Your task to perform on an android device: What's the weather going to be tomorrow? Image 0: 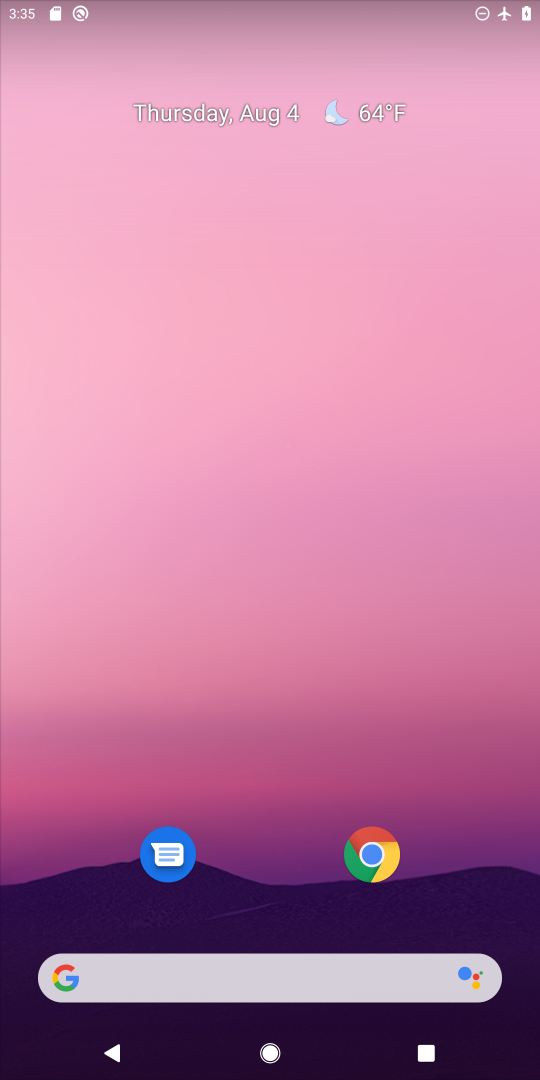
Step 0: drag from (270, 879) to (238, 271)
Your task to perform on an android device: What's the weather going to be tomorrow? Image 1: 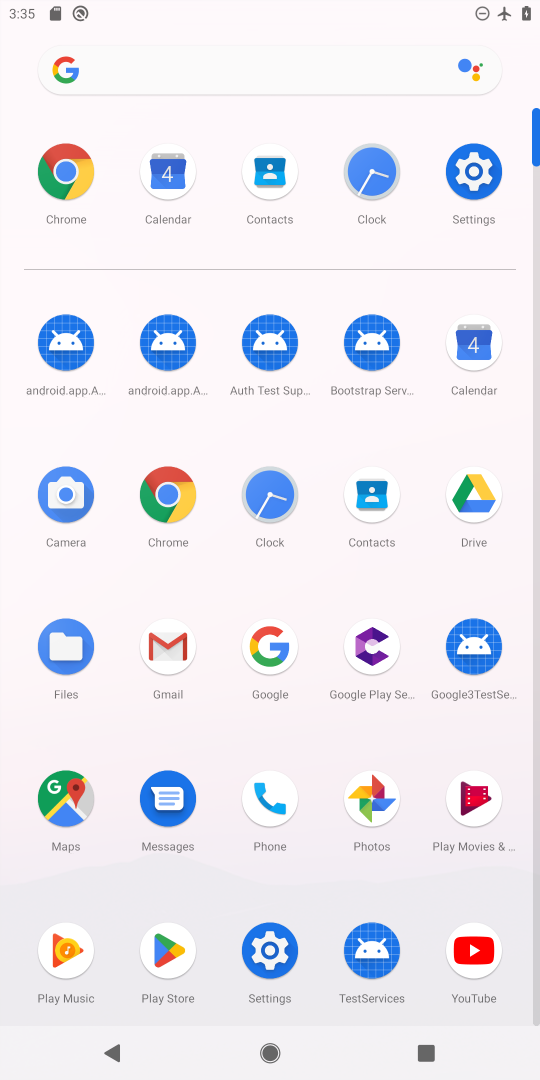
Step 1: press home button
Your task to perform on an android device: What's the weather going to be tomorrow? Image 2: 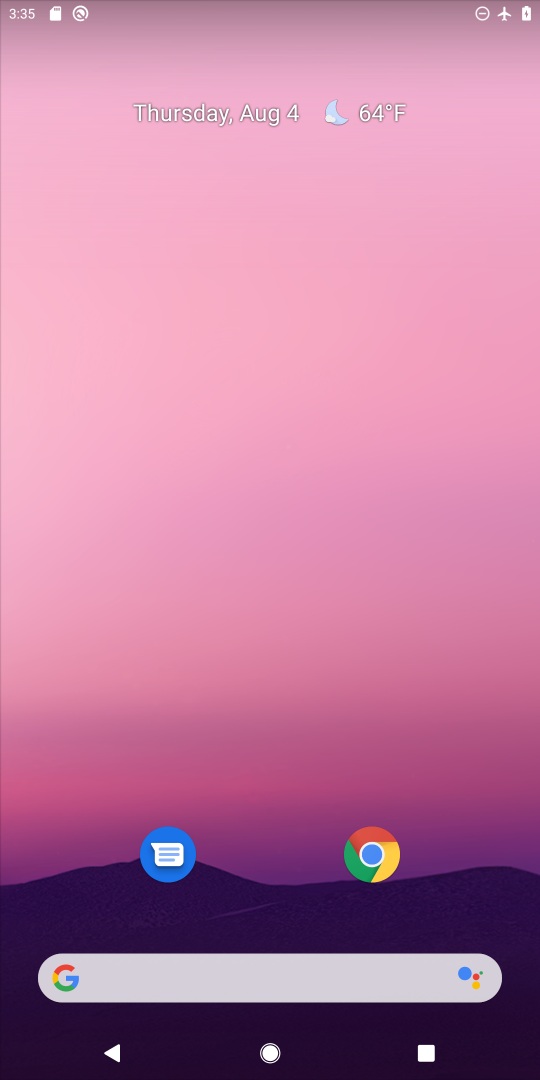
Step 2: click (253, 984)
Your task to perform on an android device: What's the weather going to be tomorrow? Image 3: 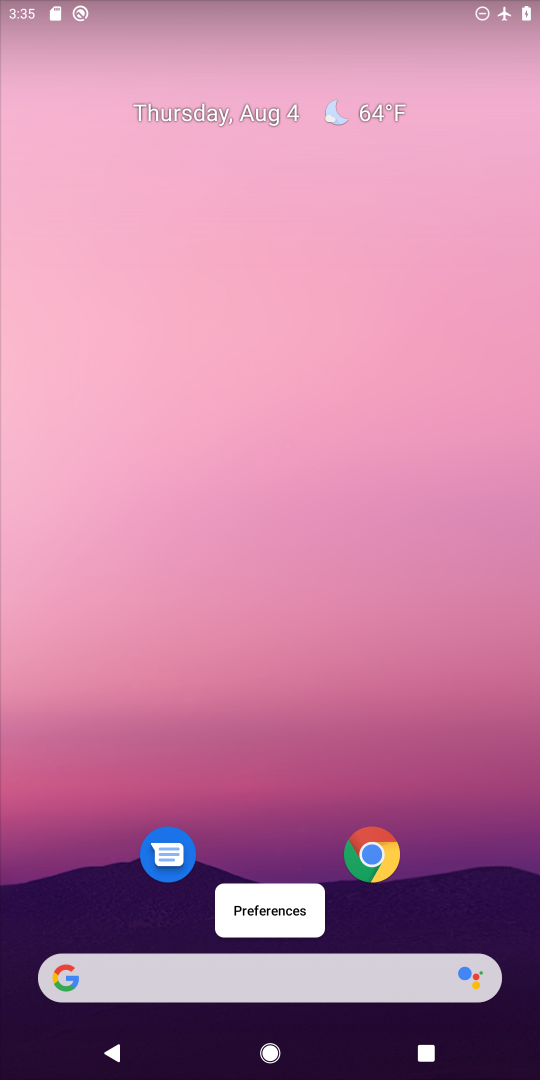
Step 3: click (253, 984)
Your task to perform on an android device: What's the weather going to be tomorrow? Image 4: 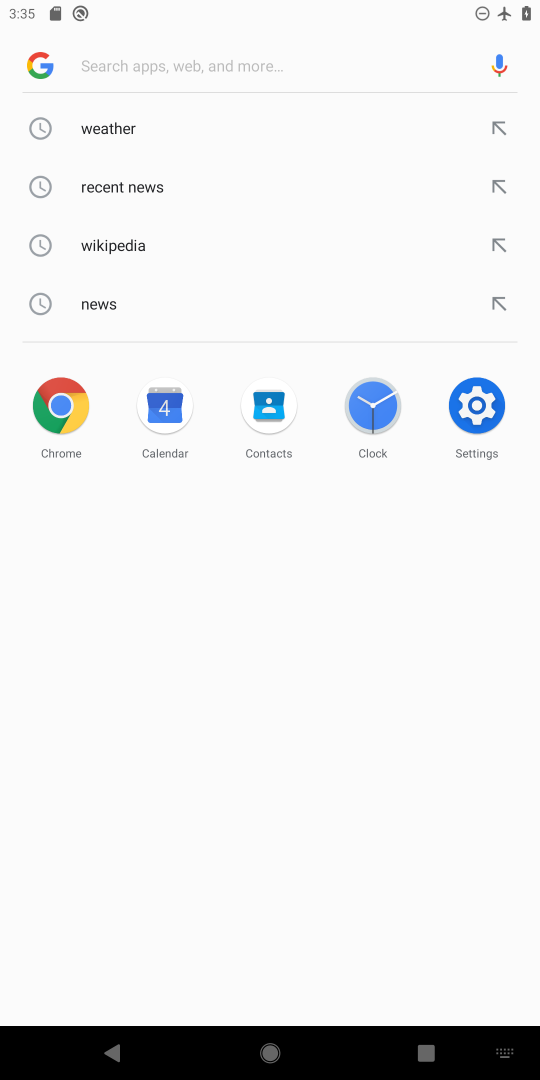
Step 4: type "What's the weather going to be tomorrow?"
Your task to perform on an android device: What's the weather going to be tomorrow? Image 5: 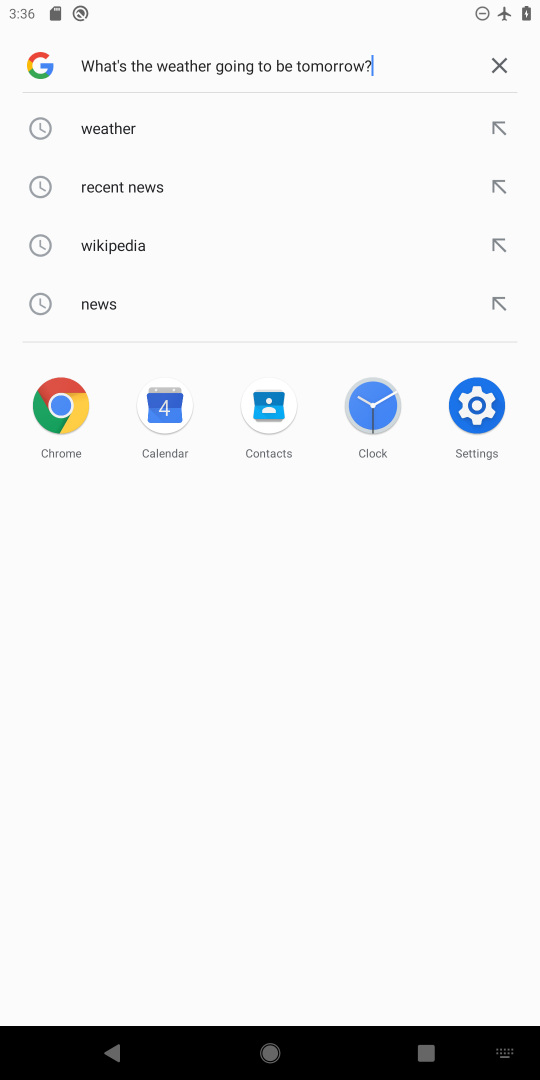
Step 5: type ""
Your task to perform on an android device: What's the weather going to be tomorrow? Image 6: 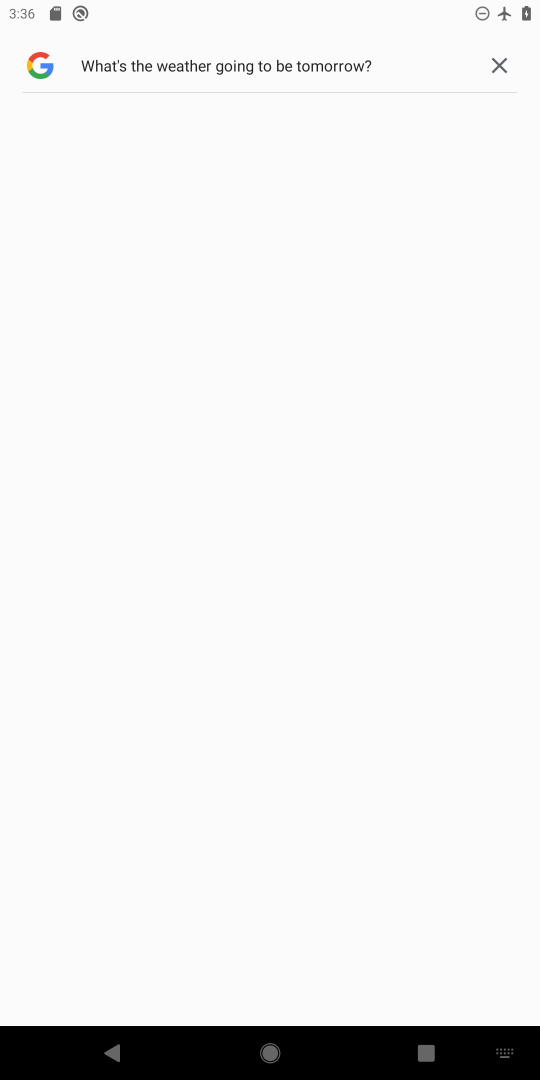
Step 6: press enter
Your task to perform on an android device: What's the weather going to be tomorrow? Image 7: 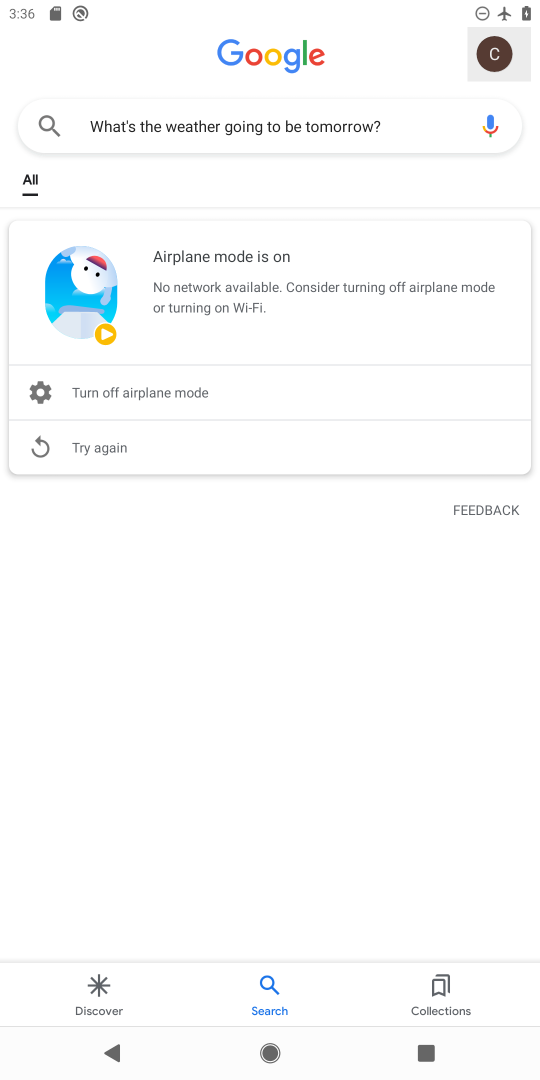
Step 7: task complete